Your task to perform on an android device: Search for seafood restaurants on Google Maps Image 0: 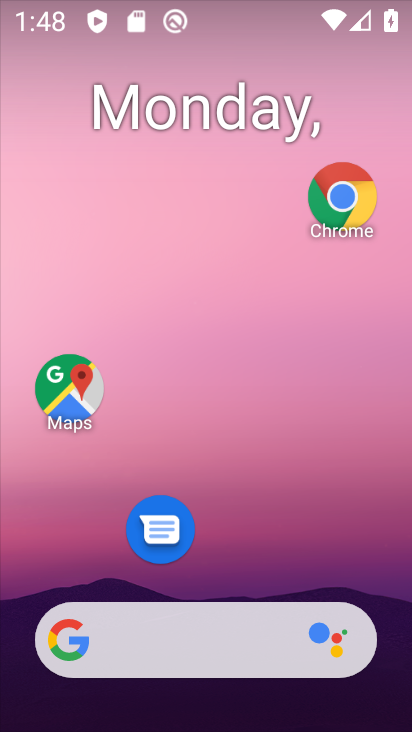
Step 0: click (86, 403)
Your task to perform on an android device: Search for seafood restaurants on Google Maps Image 1: 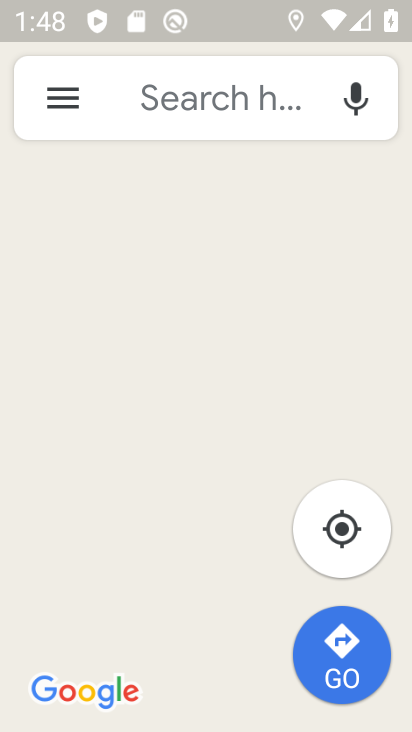
Step 1: click (240, 119)
Your task to perform on an android device: Search for seafood restaurants on Google Maps Image 2: 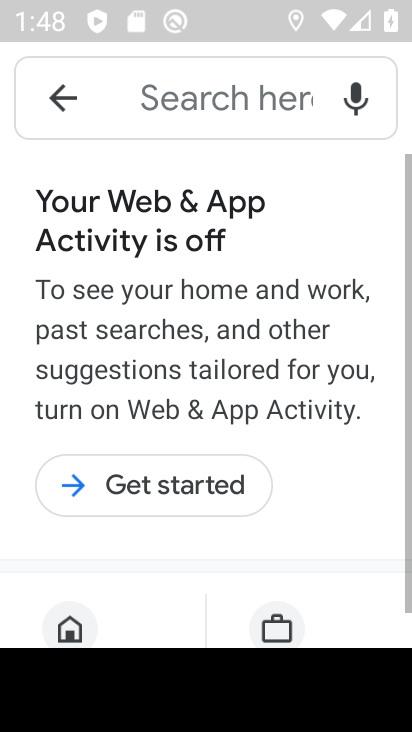
Step 2: click (205, 476)
Your task to perform on an android device: Search for seafood restaurants on Google Maps Image 3: 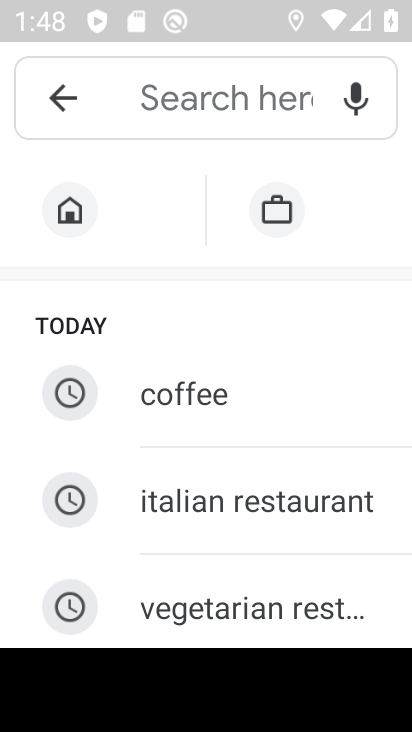
Step 3: drag from (230, 508) to (181, 159)
Your task to perform on an android device: Search for seafood restaurants on Google Maps Image 4: 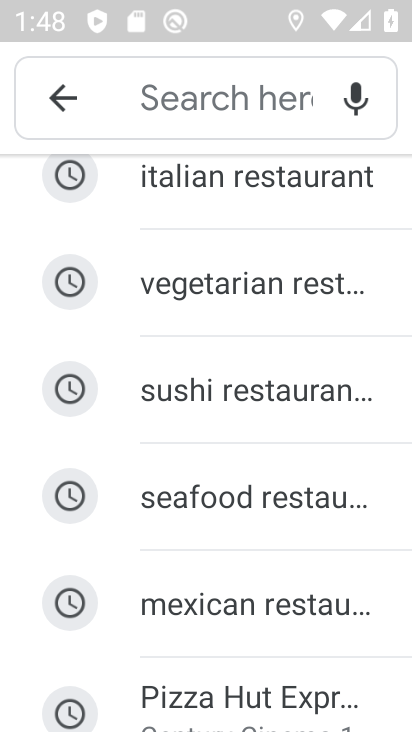
Step 4: click (218, 489)
Your task to perform on an android device: Search for seafood restaurants on Google Maps Image 5: 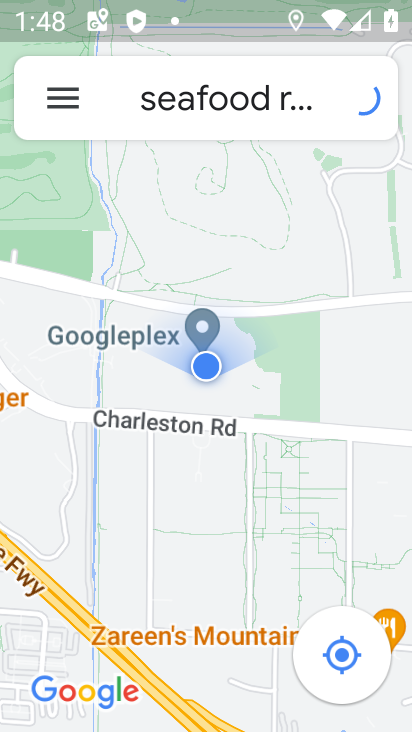
Step 5: task complete